Your task to perform on an android device: Go to accessibility settings Image 0: 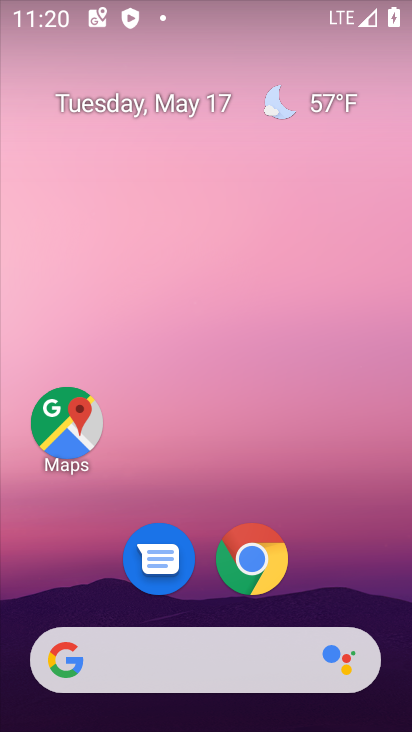
Step 0: drag from (364, 603) to (158, 0)
Your task to perform on an android device: Go to accessibility settings Image 1: 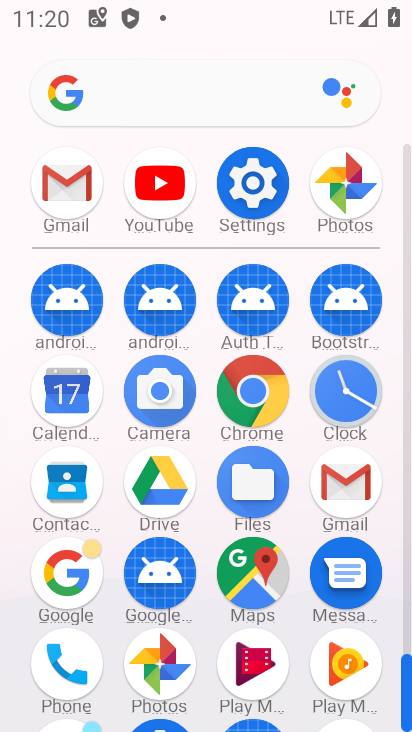
Step 1: click (254, 174)
Your task to perform on an android device: Go to accessibility settings Image 2: 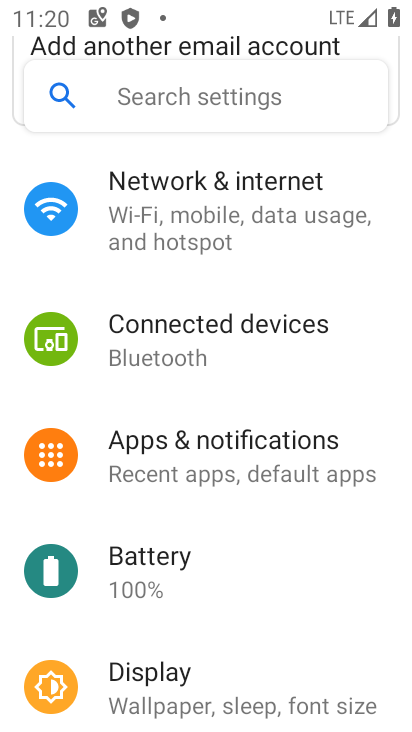
Step 2: drag from (195, 642) to (132, 0)
Your task to perform on an android device: Go to accessibility settings Image 3: 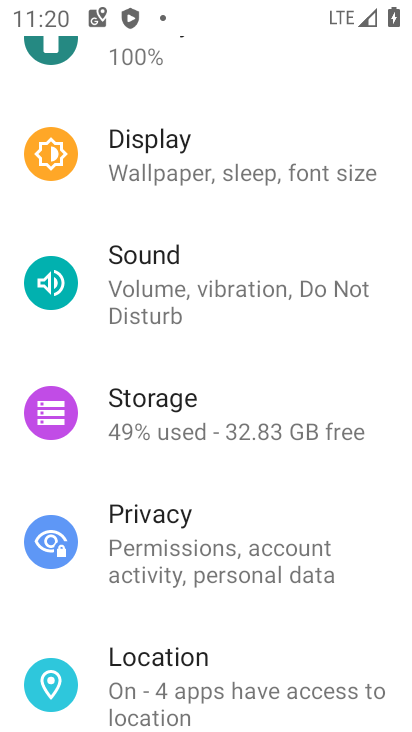
Step 3: drag from (165, 623) to (117, 83)
Your task to perform on an android device: Go to accessibility settings Image 4: 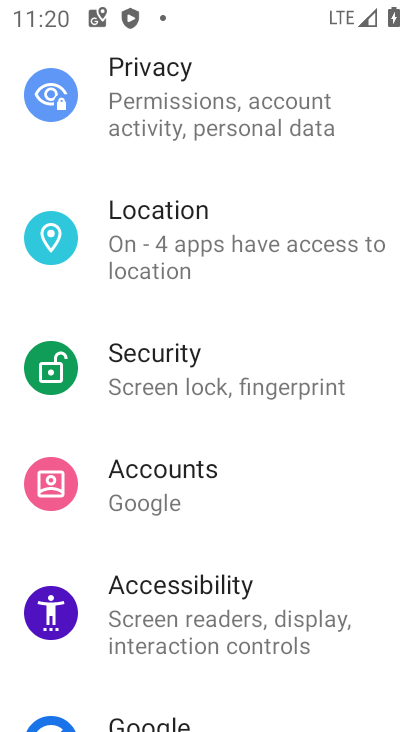
Step 4: click (144, 602)
Your task to perform on an android device: Go to accessibility settings Image 5: 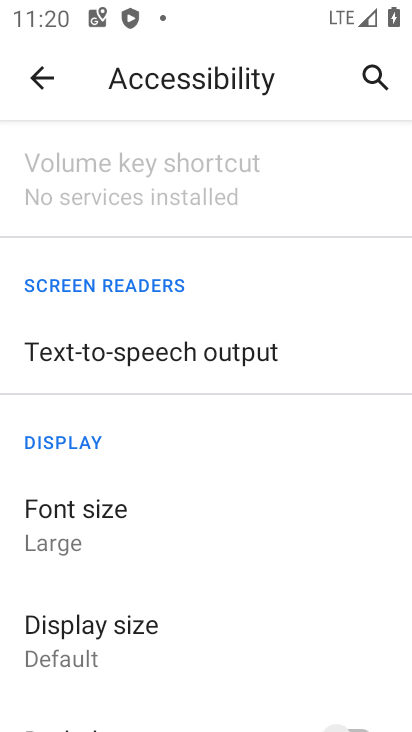
Step 5: task complete